Your task to perform on an android device: Go to CNN.com Image 0: 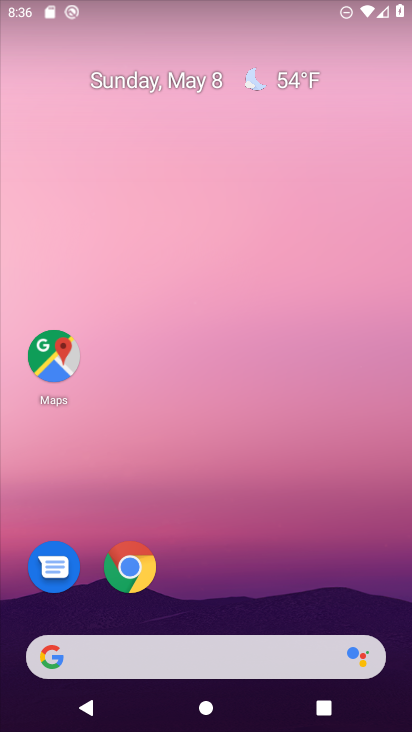
Step 0: drag from (277, 585) to (336, 54)
Your task to perform on an android device: Go to CNN.com Image 1: 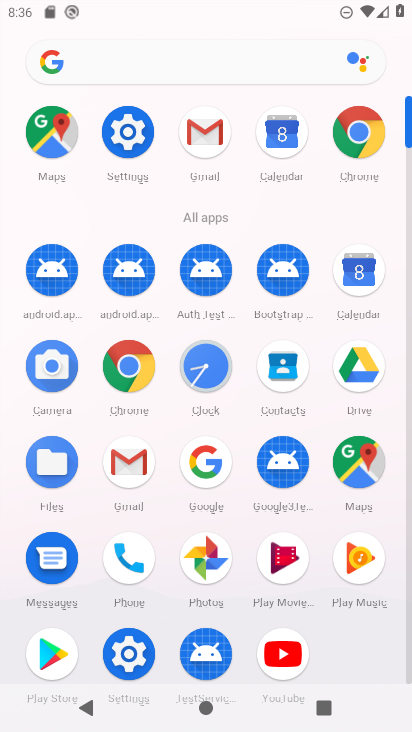
Step 1: click (352, 145)
Your task to perform on an android device: Go to CNN.com Image 2: 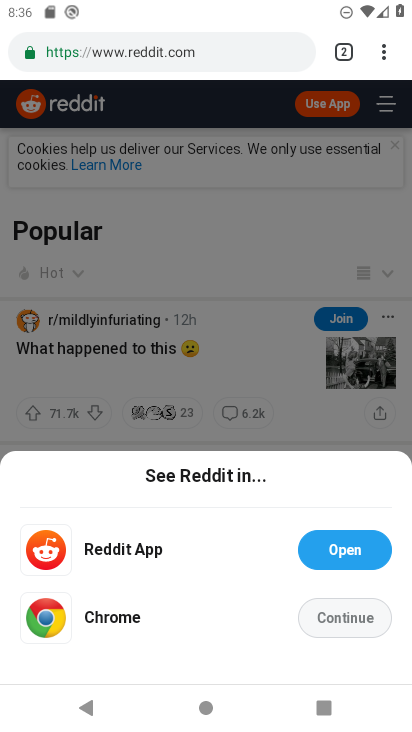
Step 2: click (220, 45)
Your task to perform on an android device: Go to CNN.com Image 3: 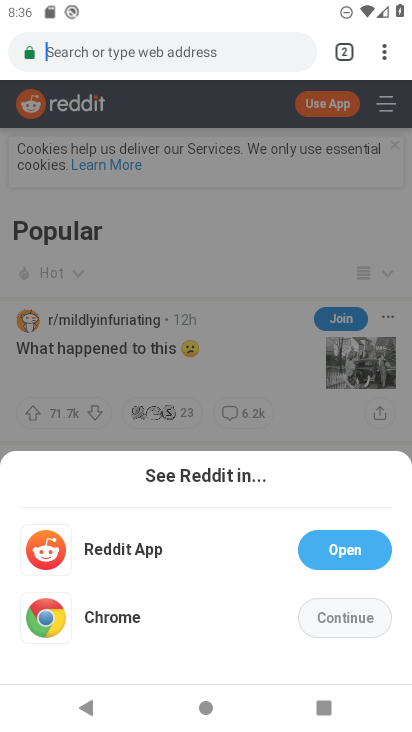
Step 3: click (220, 44)
Your task to perform on an android device: Go to CNN.com Image 4: 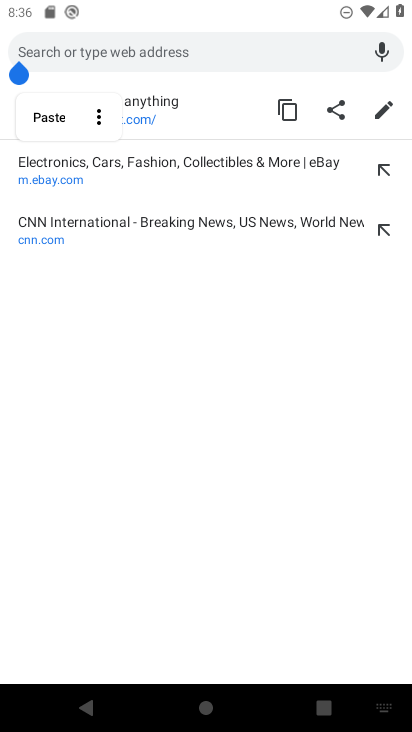
Step 4: click (82, 239)
Your task to perform on an android device: Go to CNN.com Image 5: 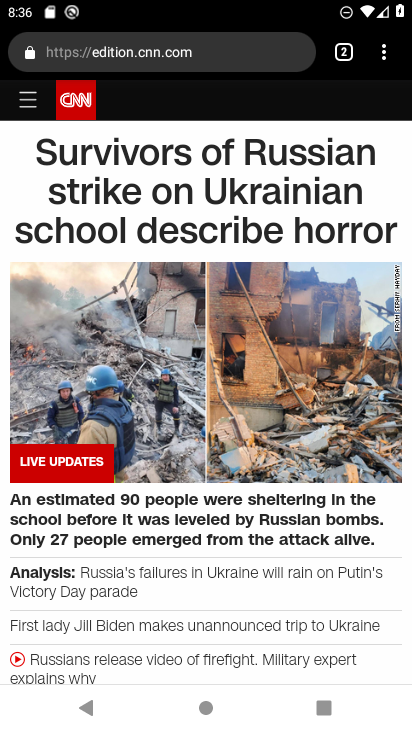
Step 5: task complete